Your task to perform on an android device: check storage Image 0: 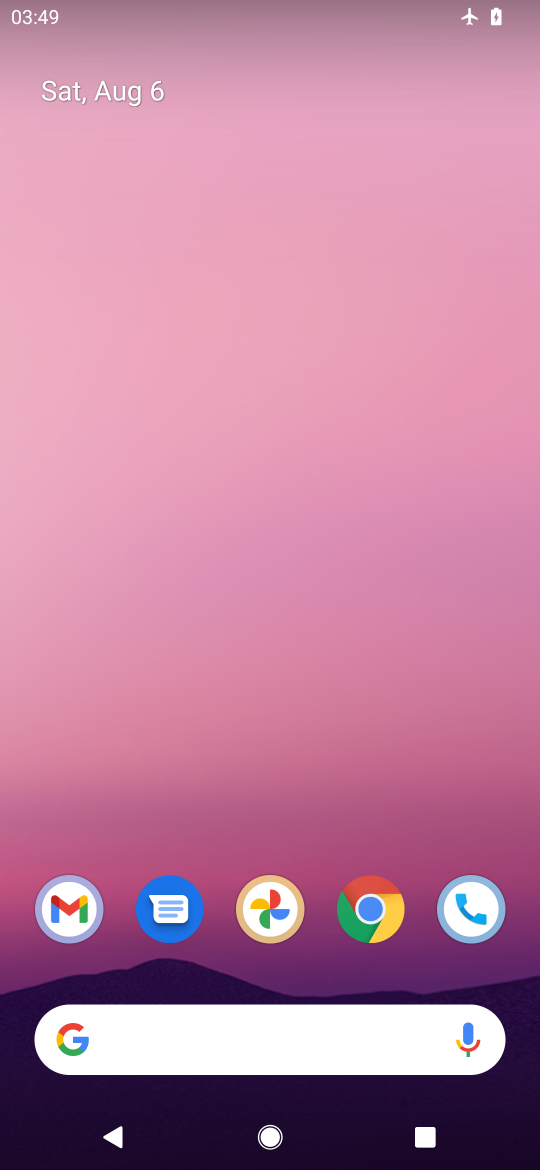
Step 0: drag from (312, 874) to (498, 110)
Your task to perform on an android device: check storage Image 1: 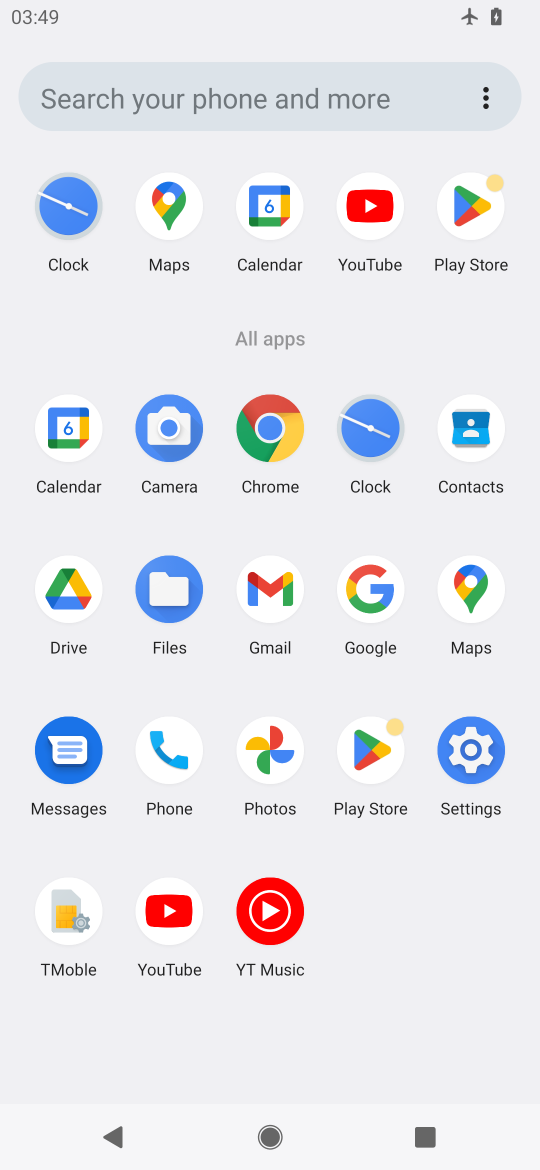
Step 1: click (443, 725)
Your task to perform on an android device: check storage Image 2: 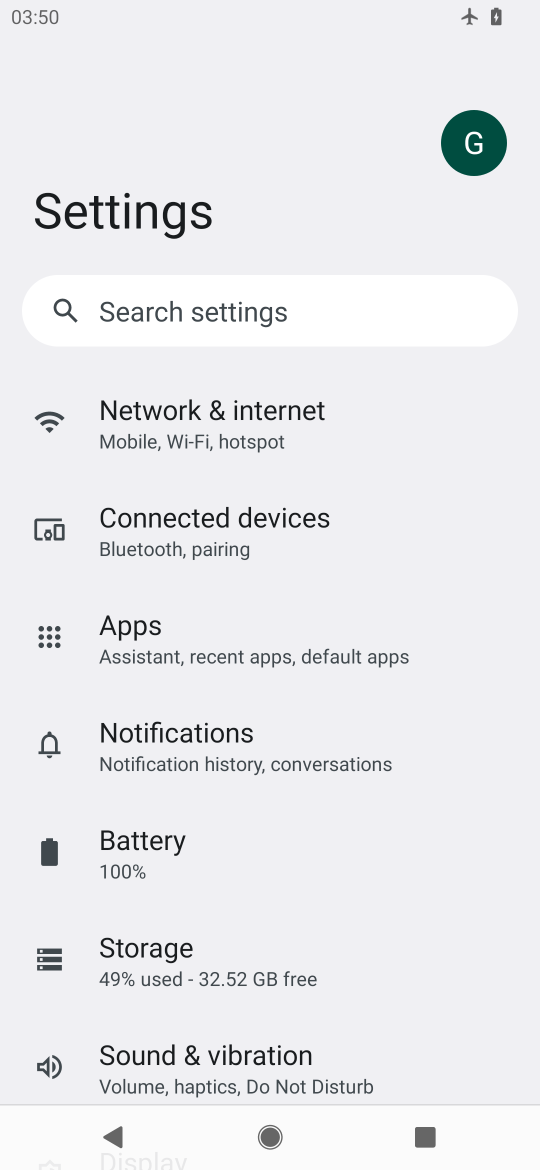
Step 2: click (232, 982)
Your task to perform on an android device: check storage Image 3: 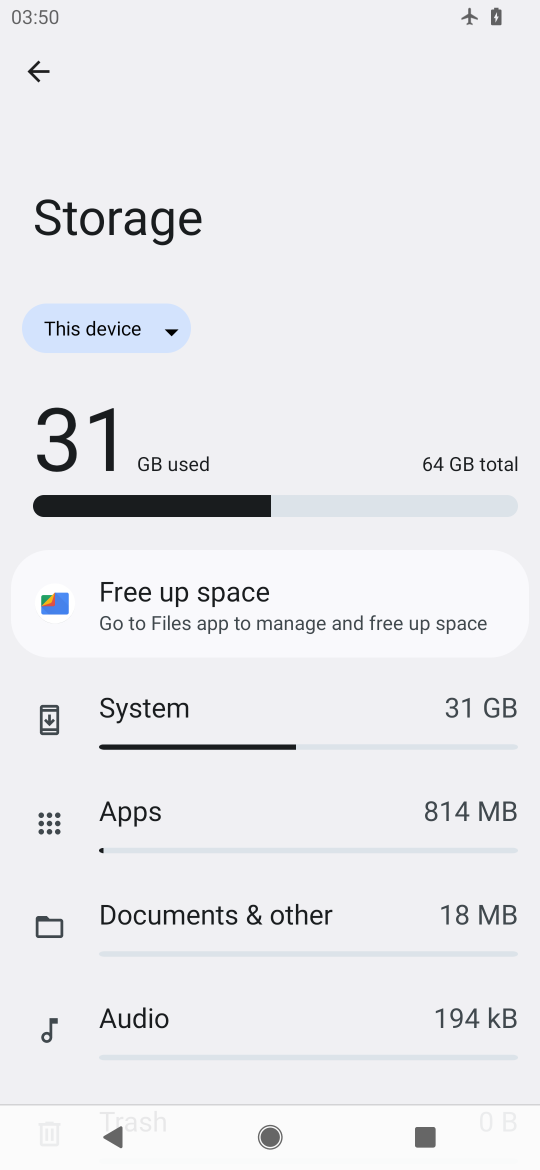
Step 3: task complete